Your task to perform on an android device: uninstall "Google Drive" Image 0: 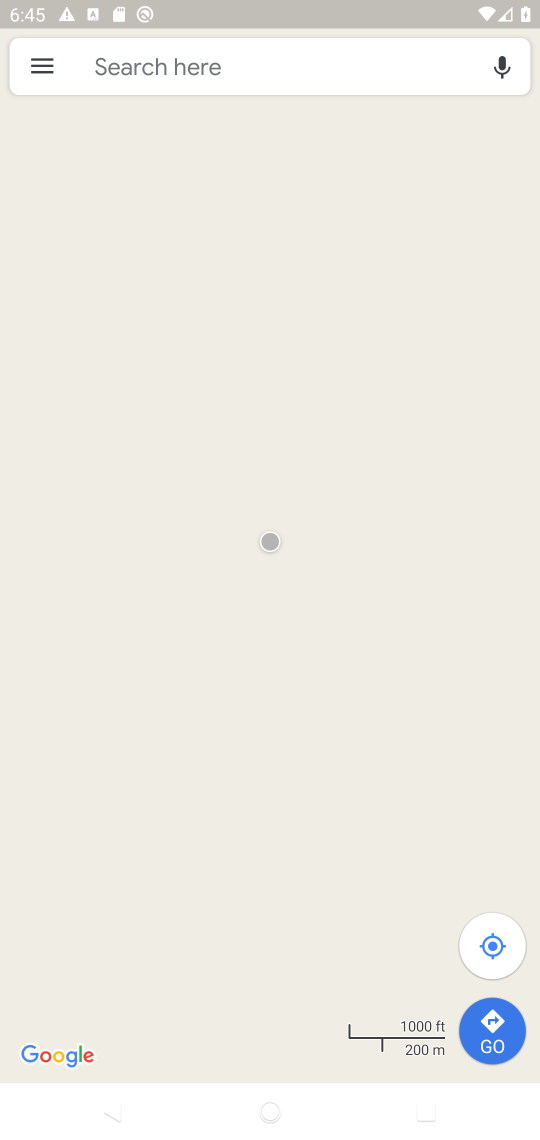
Step 0: drag from (252, 914) to (274, 606)
Your task to perform on an android device: uninstall "Google Drive" Image 1: 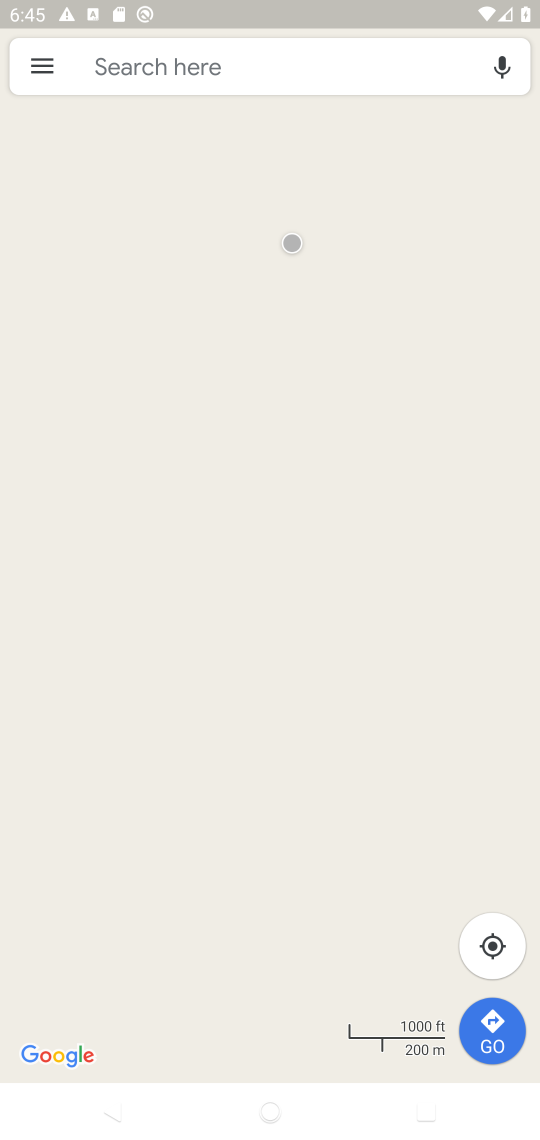
Step 1: press home button
Your task to perform on an android device: uninstall "Google Drive" Image 2: 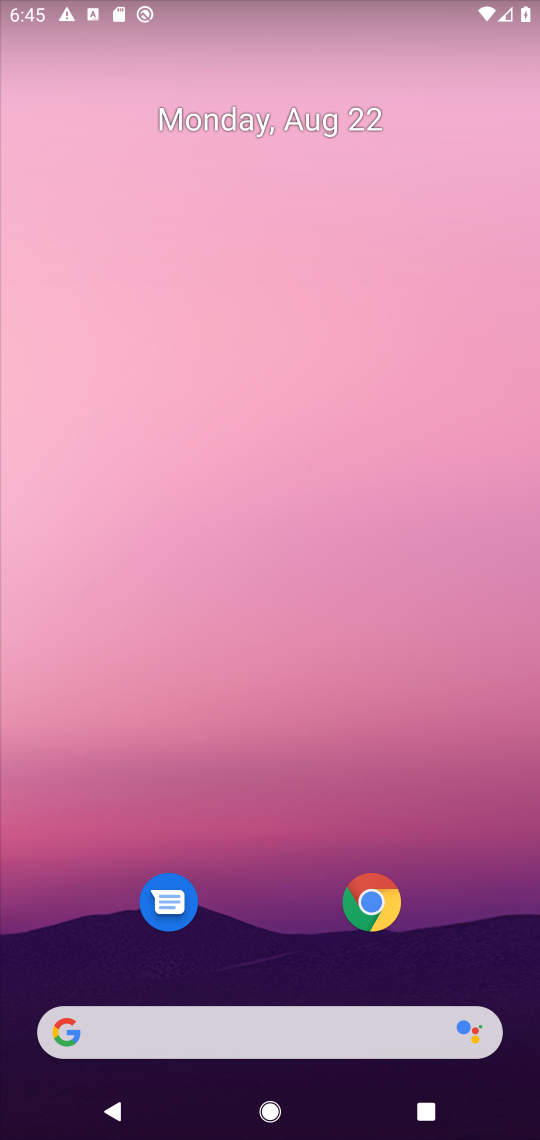
Step 2: drag from (253, 929) to (281, 124)
Your task to perform on an android device: uninstall "Google Drive" Image 3: 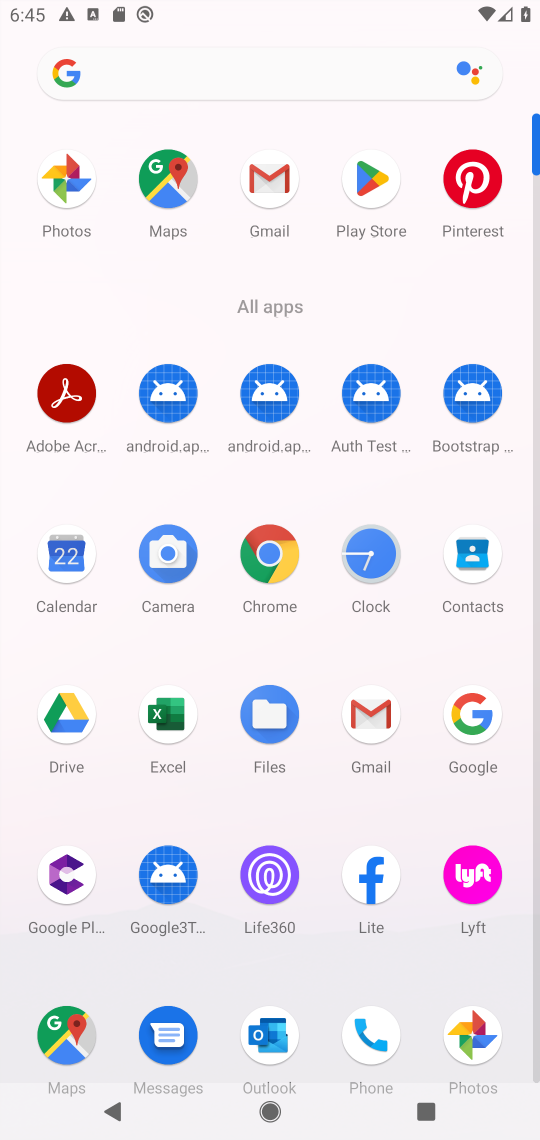
Step 3: click (347, 181)
Your task to perform on an android device: uninstall "Google Drive" Image 4: 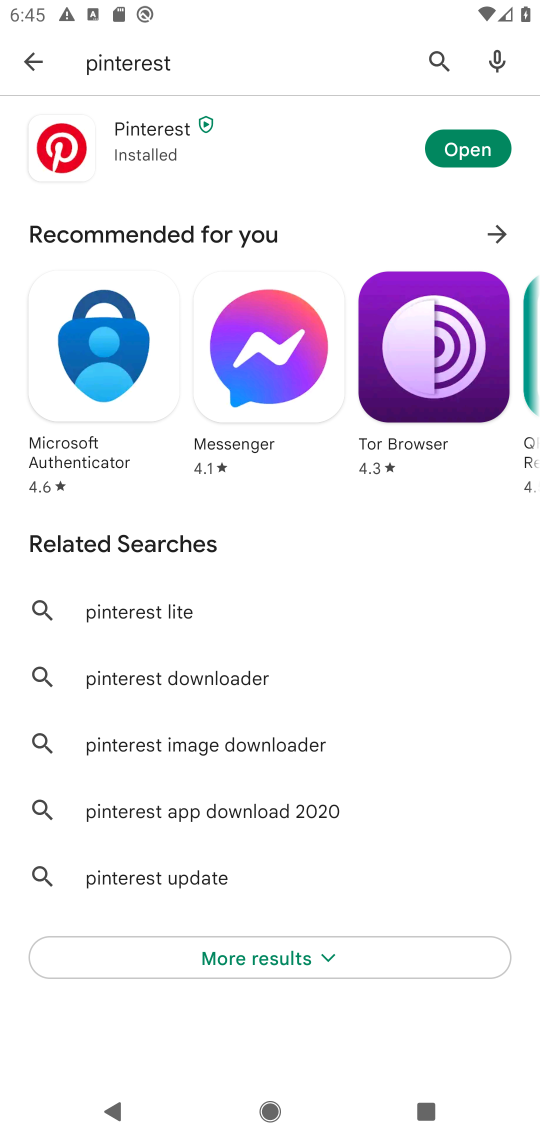
Step 4: click (35, 65)
Your task to perform on an android device: uninstall "Google Drive" Image 5: 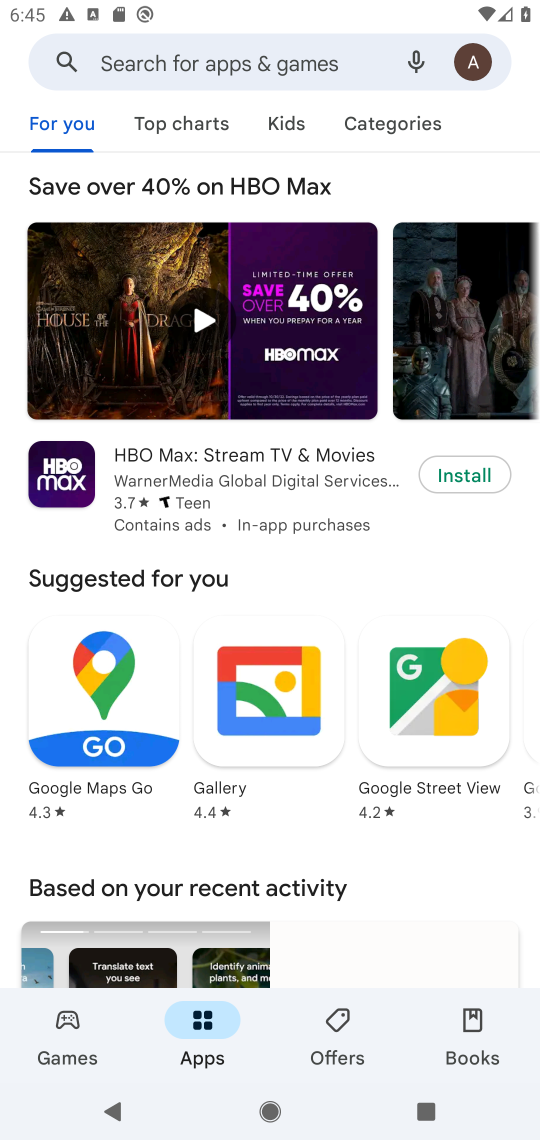
Step 5: click (218, 45)
Your task to perform on an android device: uninstall "Google Drive" Image 6: 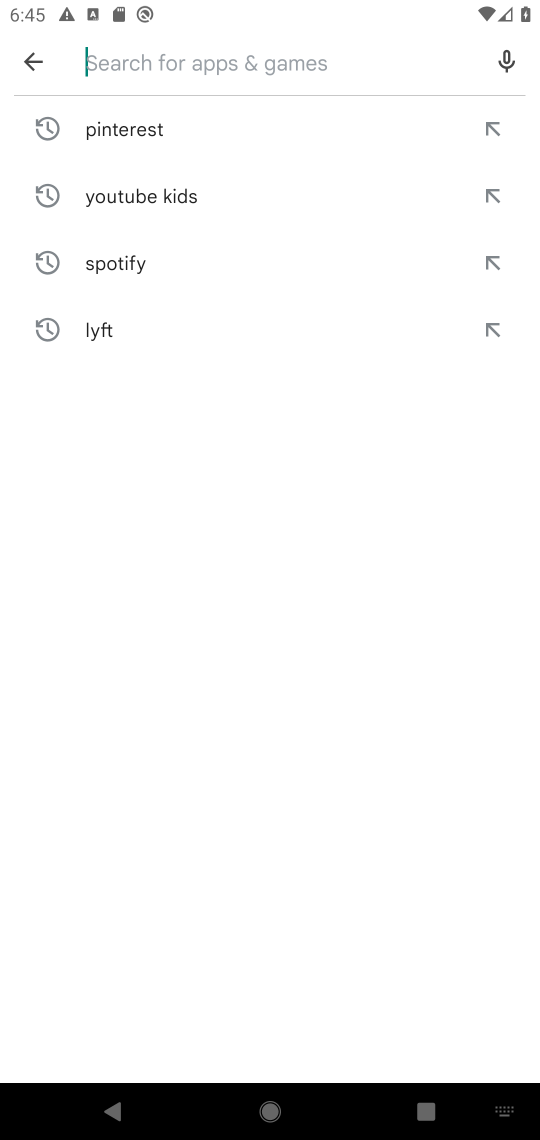
Step 6: type "Google Drive"
Your task to perform on an android device: uninstall "Google Drive" Image 7: 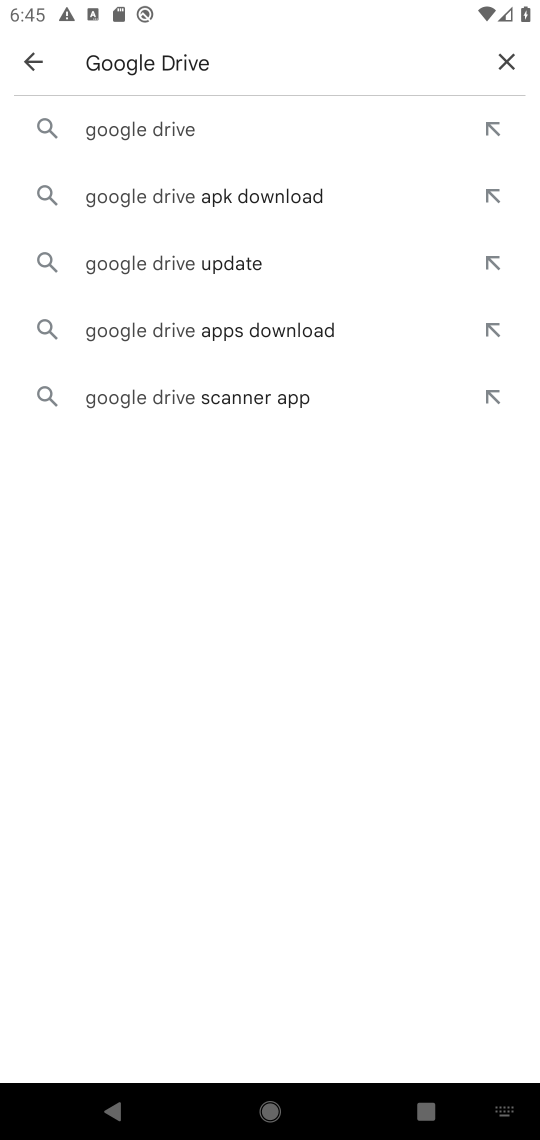
Step 7: click (154, 127)
Your task to perform on an android device: uninstall "Google Drive" Image 8: 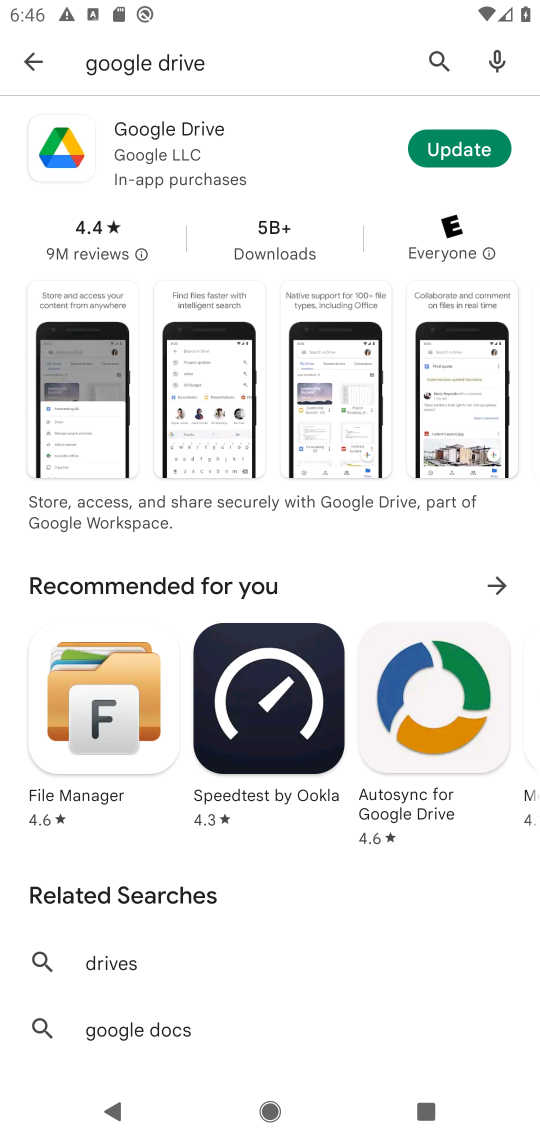
Step 8: click (197, 127)
Your task to perform on an android device: uninstall "Google Drive" Image 9: 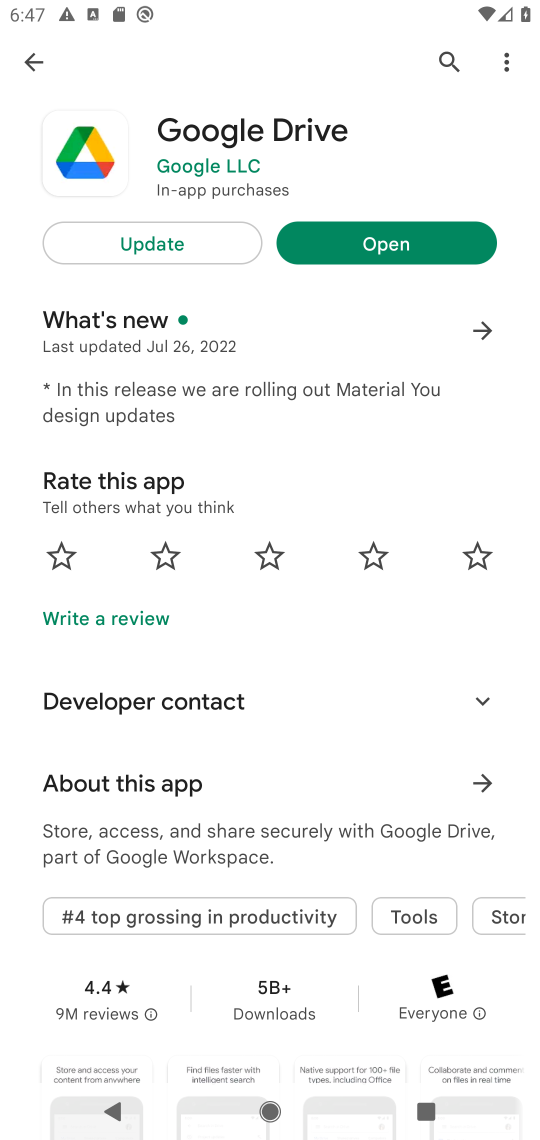
Step 9: click (157, 228)
Your task to perform on an android device: uninstall "Google Drive" Image 10: 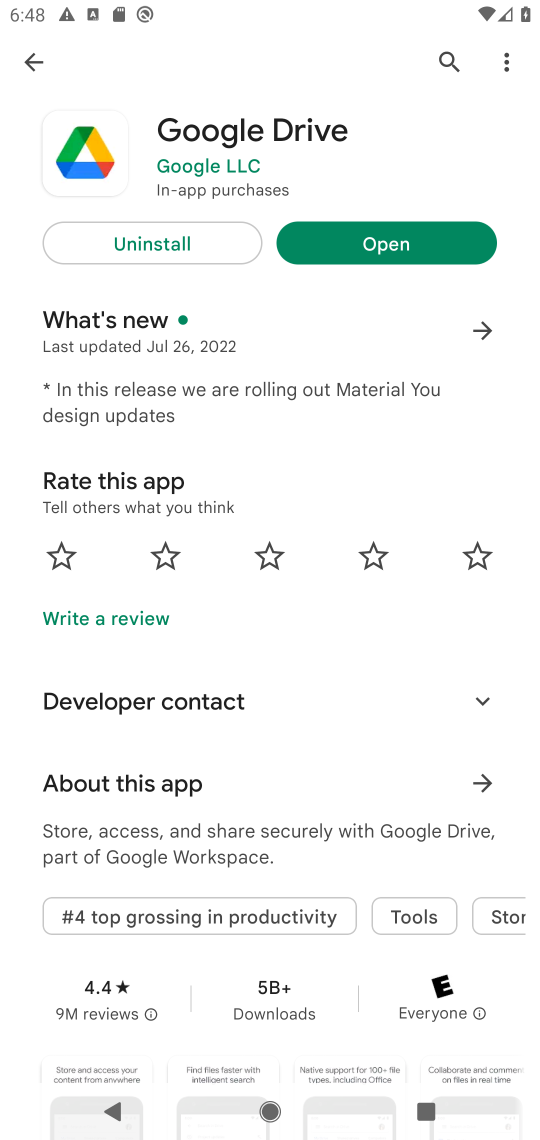
Step 10: click (150, 242)
Your task to perform on an android device: uninstall "Google Drive" Image 11: 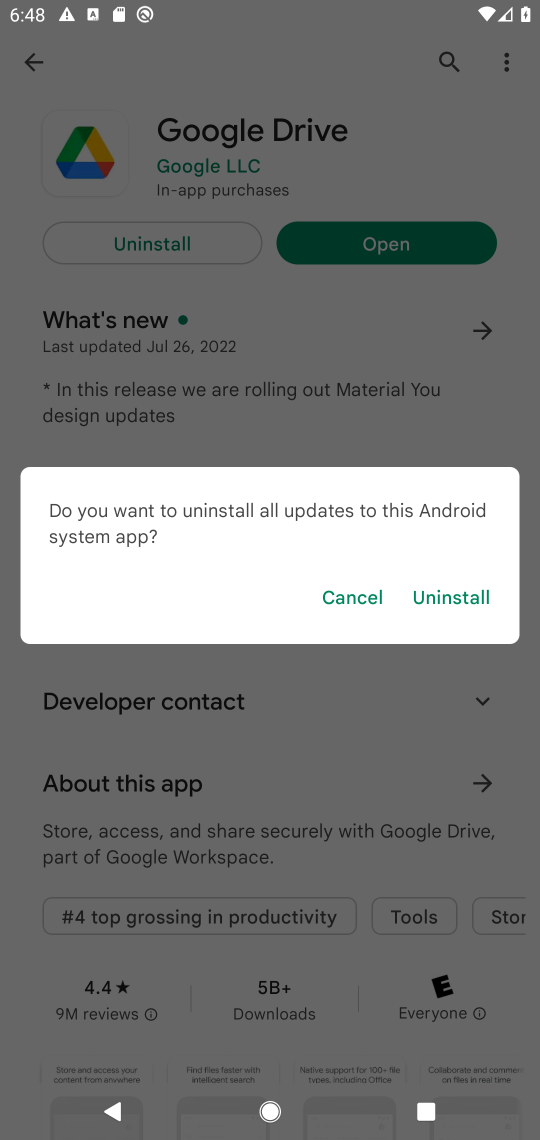
Step 11: click (453, 599)
Your task to perform on an android device: uninstall "Google Drive" Image 12: 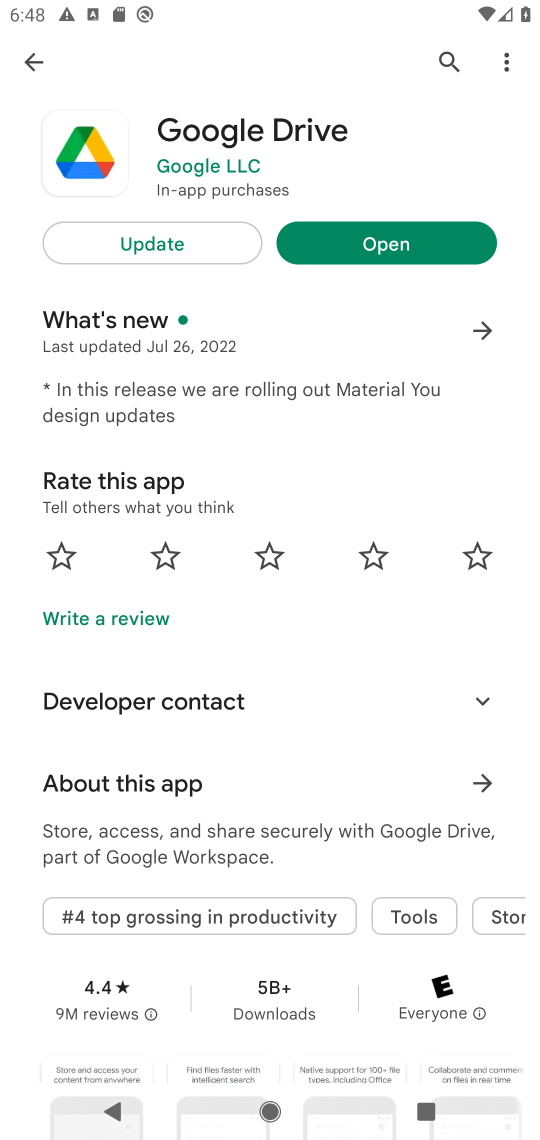
Step 12: task complete